Your task to perform on an android device: toggle notification dots Image 0: 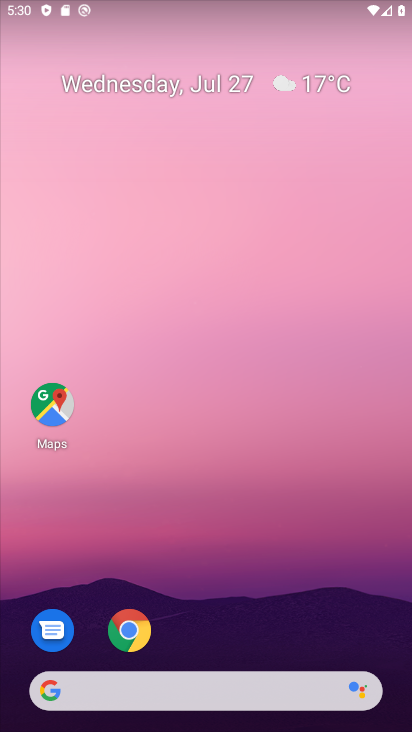
Step 0: click (260, 8)
Your task to perform on an android device: toggle notification dots Image 1: 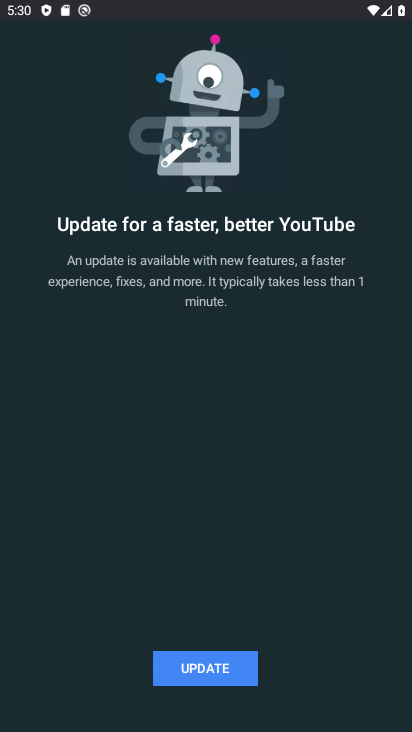
Step 1: press home button
Your task to perform on an android device: toggle notification dots Image 2: 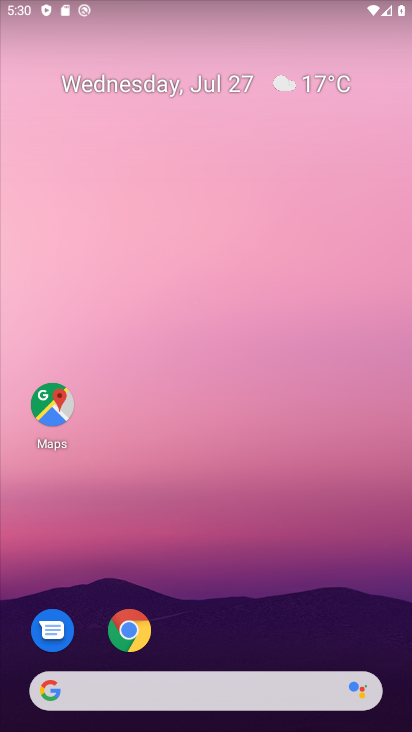
Step 2: drag from (226, 651) to (276, 101)
Your task to perform on an android device: toggle notification dots Image 3: 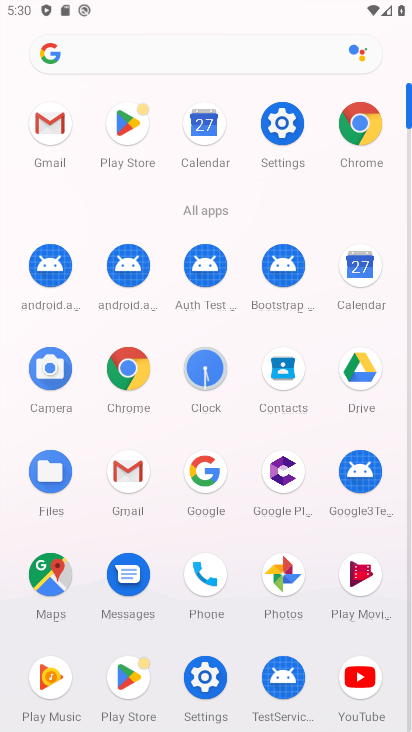
Step 3: click (280, 114)
Your task to perform on an android device: toggle notification dots Image 4: 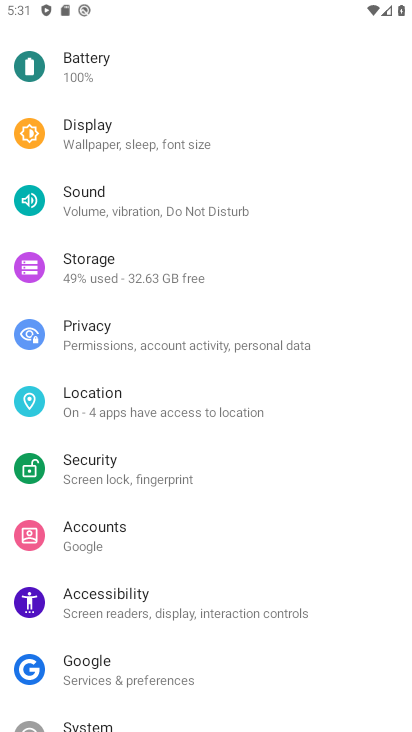
Step 4: drag from (112, 109) to (105, 335)
Your task to perform on an android device: toggle notification dots Image 5: 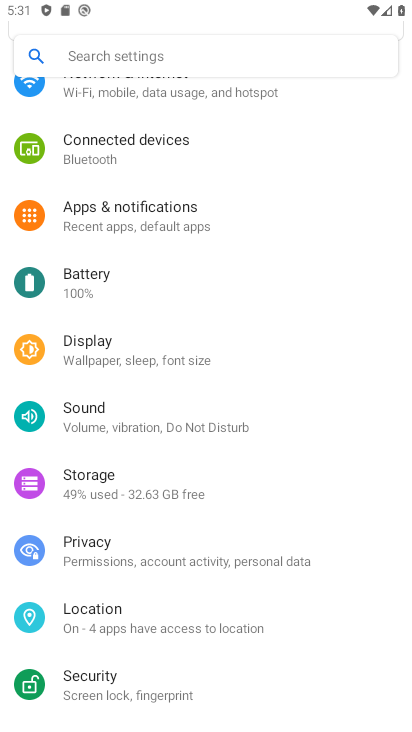
Step 5: click (130, 208)
Your task to perform on an android device: toggle notification dots Image 6: 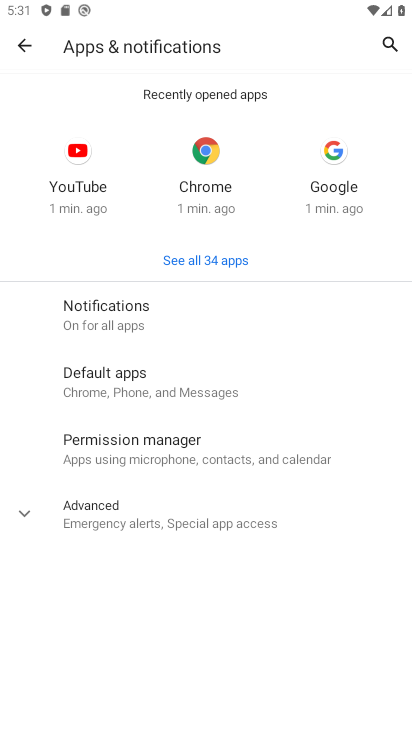
Step 6: click (22, 511)
Your task to perform on an android device: toggle notification dots Image 7: 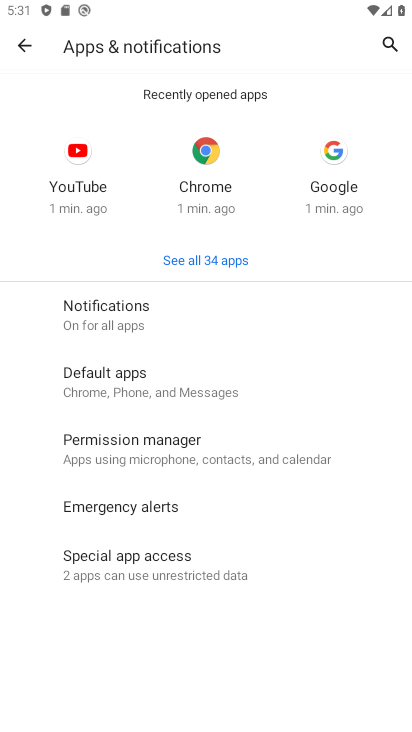
Step 7: click (140, 312)
Your task to perform on an android device: toggle notification dots Image 8: 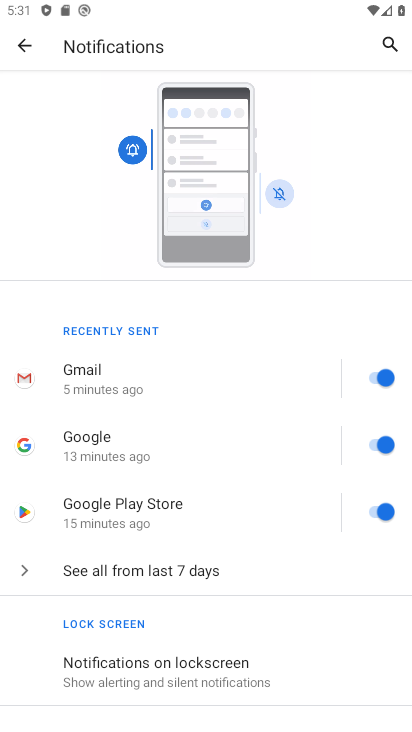
Step 8: drag from (178, 668) to (201, 350)
Your task to perform on an android device: toggle notification dots Image 9: 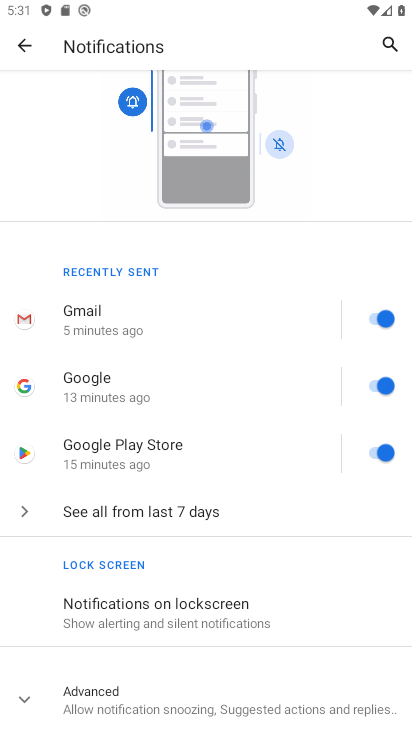
Step 9: click (32, 703)
Your task to perform on an android device: toggle notification dots Image 10: 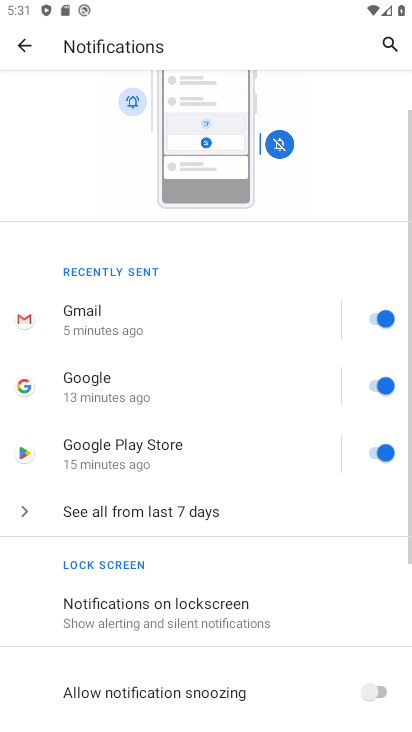
Step 10: drag from (213, 665) to (230, 377)
Your task to perform on an android device: toggle notification dots Image 11: 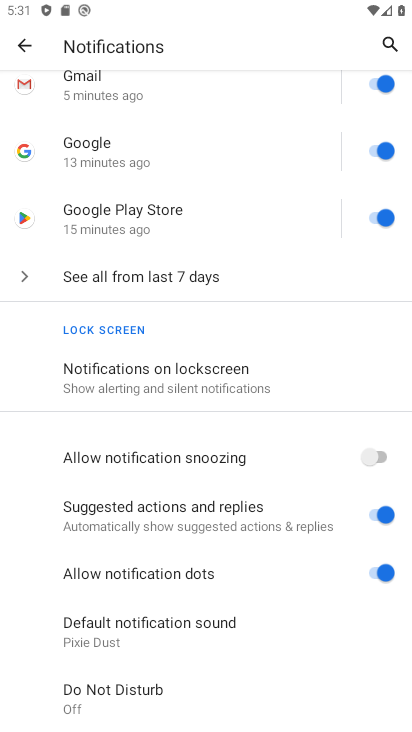
Step 11: click (381, 569)
Your task to perform on an android device: toggle notification dots Image 12: 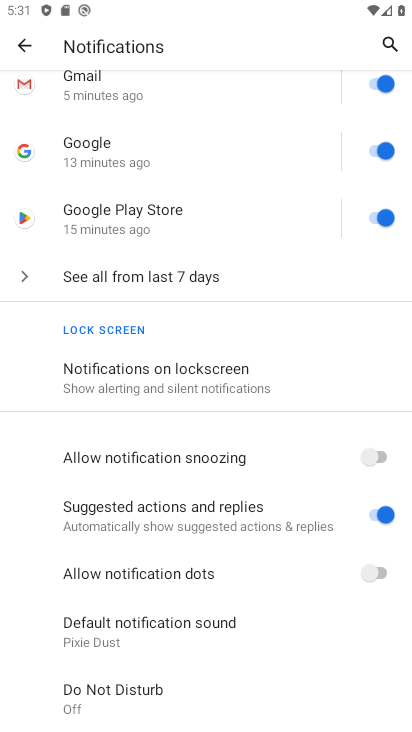
Step 12: task complete